Your task to perform on an android device: change the clock style Image 0: 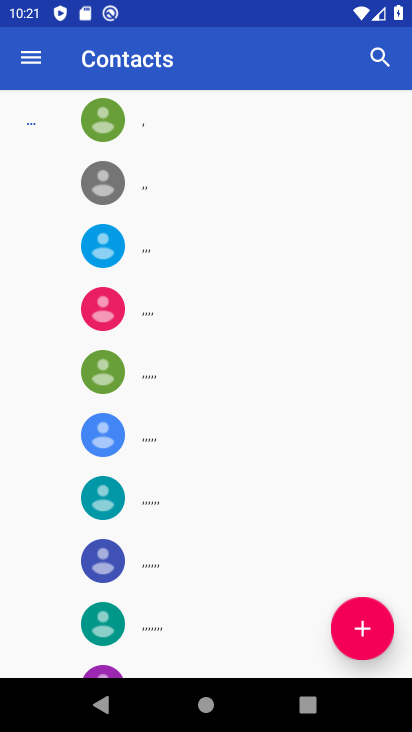
Step 0: press home button
Your task to perform on an android device: change the clock style Image 1: 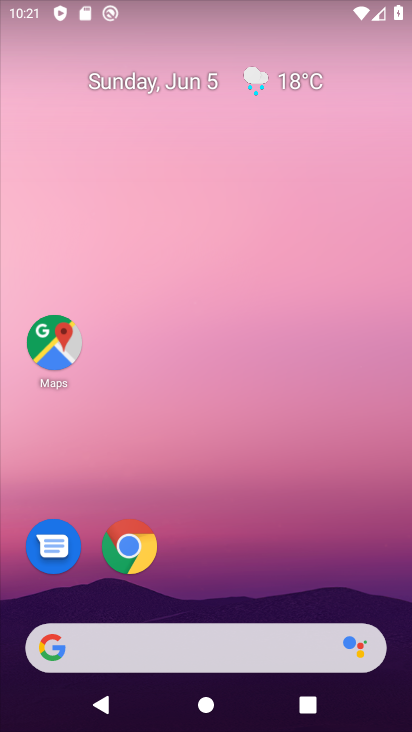
Step 1: drag from (160, 564) to (152, 35)
Your task to perform on an android device: change the clock style Image 2: 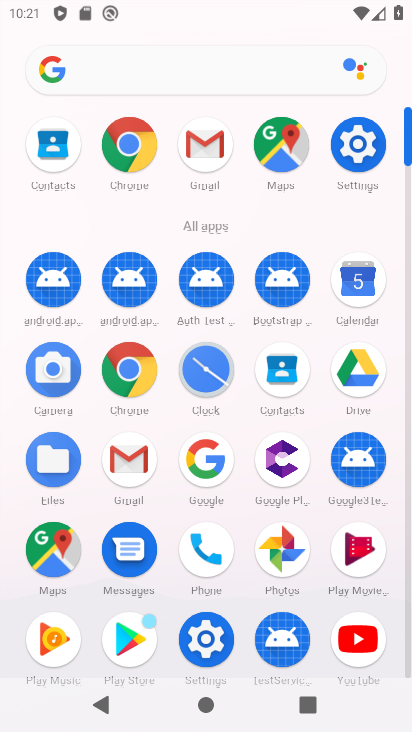
Step 2: click (204, 373)
Your task to perform on an android device: change the clock style Image 3: 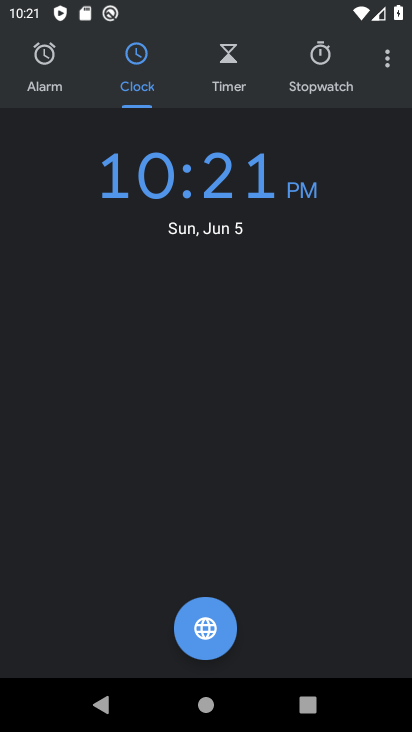
Step 3: click (388, 59)
Your task to perform on an android device: change the clock style Image 4: 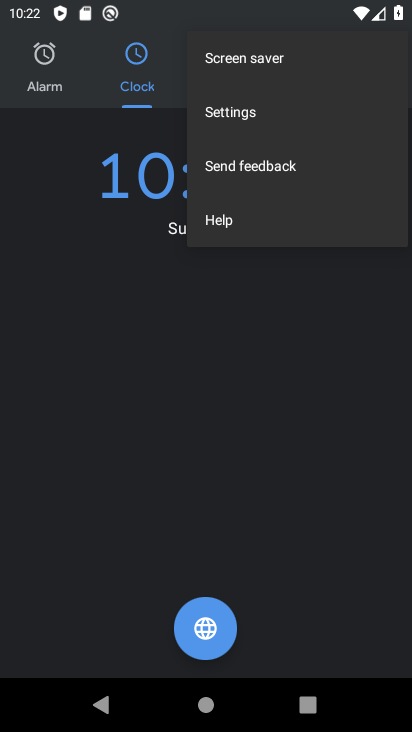
Step 4: click (230, 121)
Your task to perform on an android device: change the clock style Image 5: 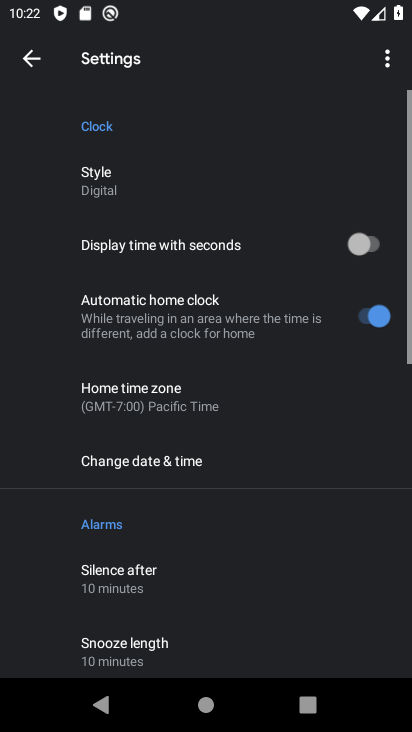
Step 5: click (121, 181)
Your task to perform on an android device: change the clock style Image 6: 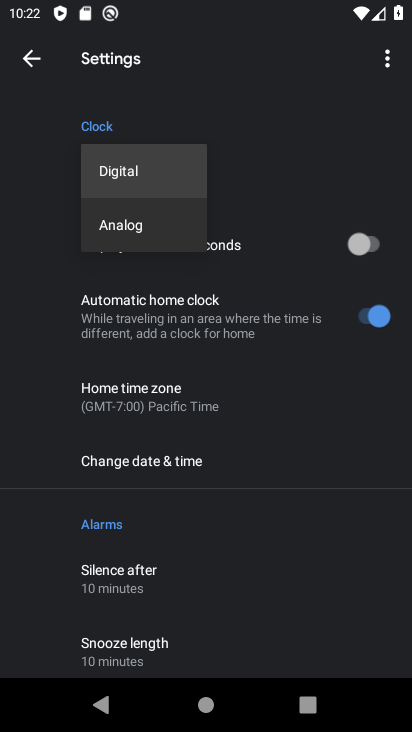
Step 6: click (142, 226)
Your task to perform on an android device: change the clock style Image 7: 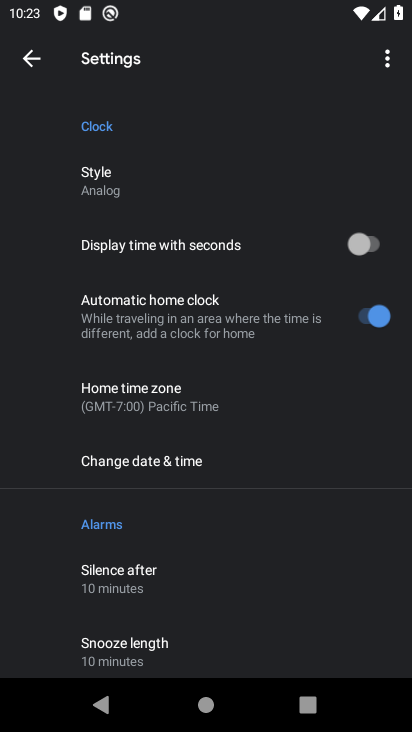
Step 7: task complete